Your task to perform on an android device: Open settings on Google Maps Image 0: 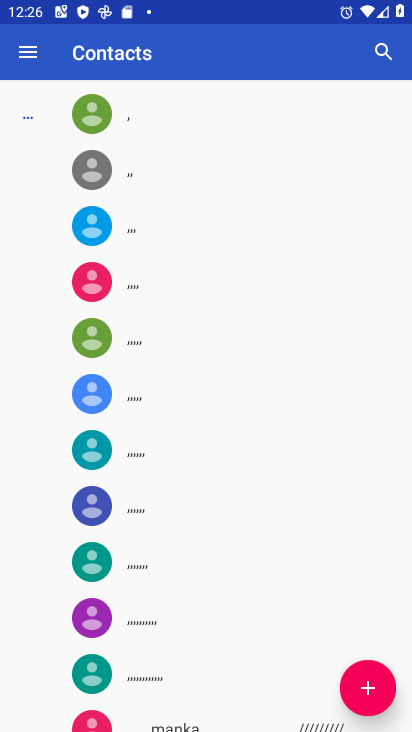
Step 0: press home button
Your task to perform on an android device: Open settings on Google Maps Image 1: 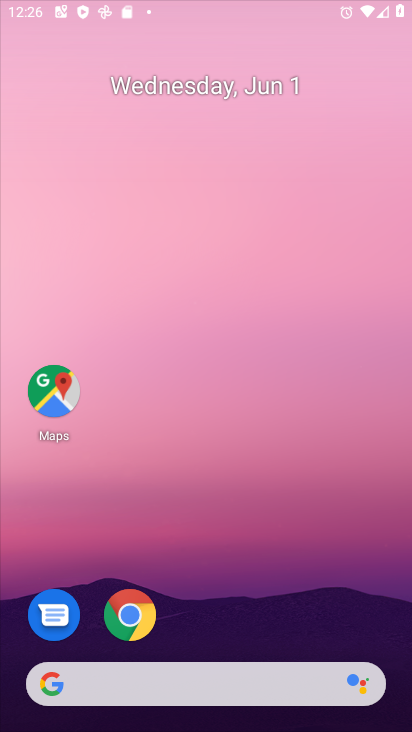
Step 1: drag from (332, 600) to (277, 87)
Your task to perform on an android device: Open settings on Google Maps Image 2: 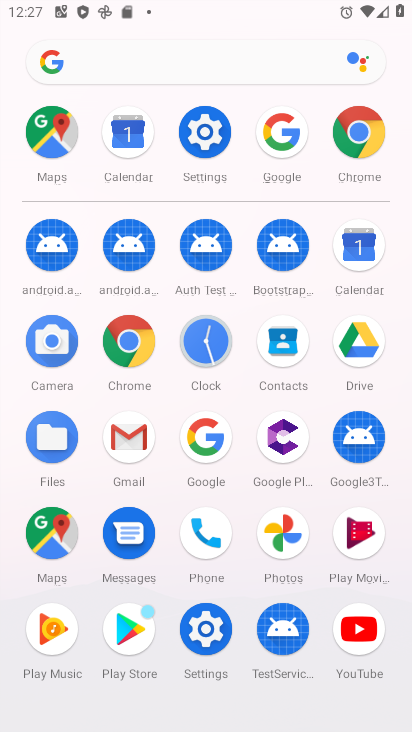
Step 2: click (70, 149)
Your task to perform on an android device: Open settings on Google Maps Image 3: 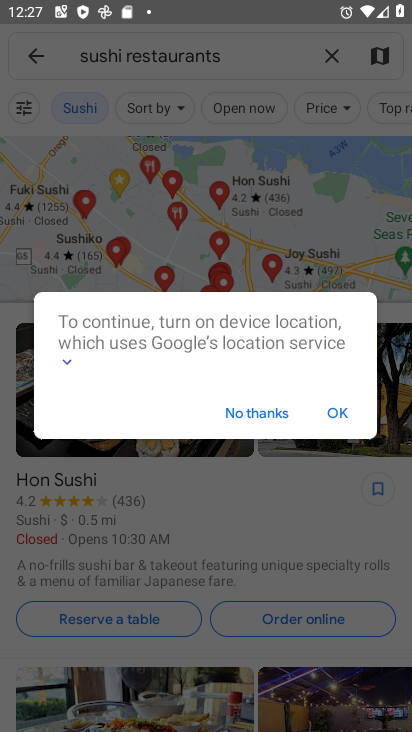
Step 3: click (349, 422)
Your task to perform on an android device: Open settings on Google Maps Image 4: 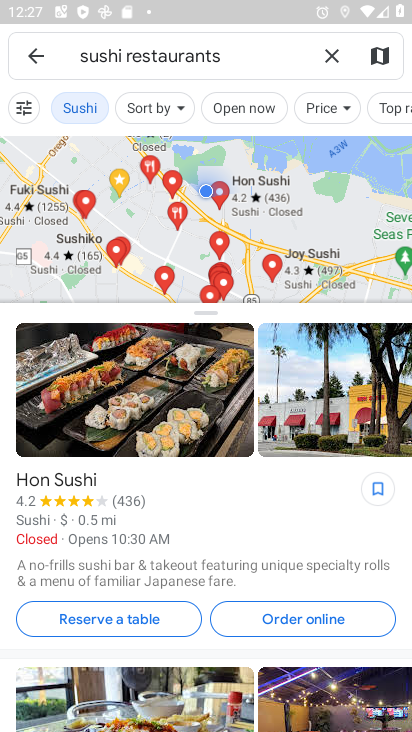
Step 4: click (39, 57)
Your task to perform on an android device: Open settings on Google Maps Image 5: 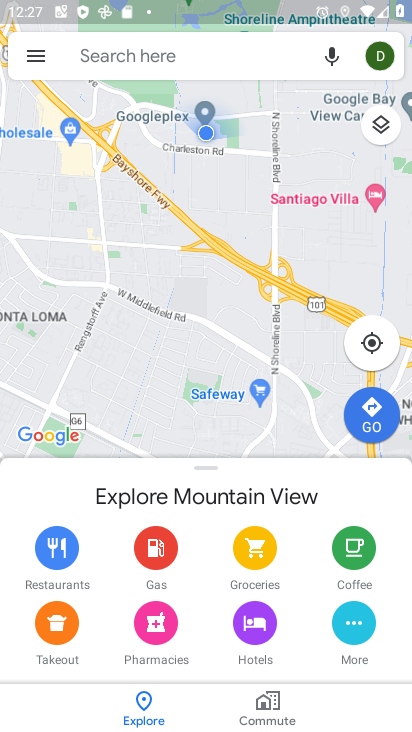
Step 5: click (39, 58)
Your task to perform on an android device: Open settings on Google Maps Image 6: 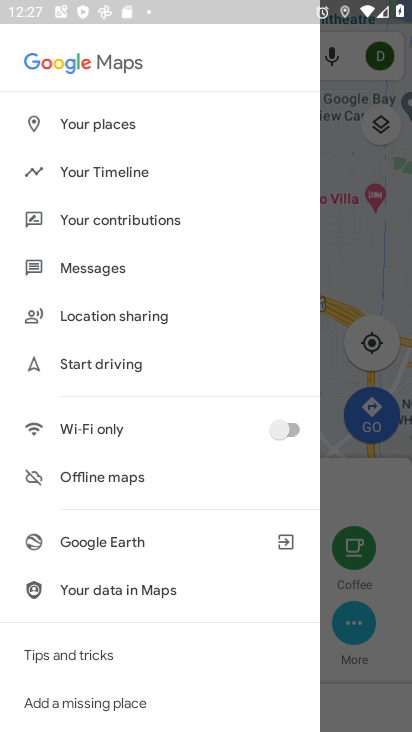
Step 6: drag from (141, 579) to (158, 199)
Your task to perform on an android device: Open settings on Google Maps Image 7: 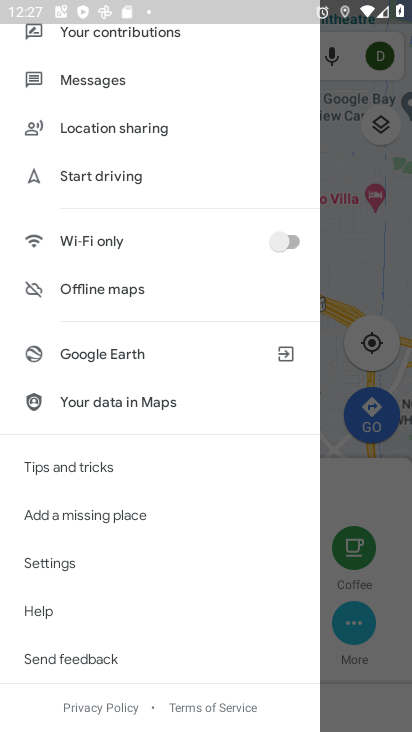
Step 7: click (57, 568)
Your task to perform on an android device: Open settings on Google Maps Image 8: 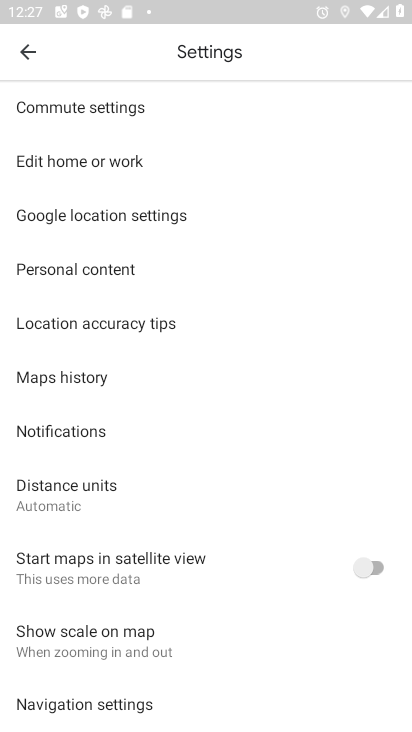
Step 8: task complete